Your task to perform on an android device: Go to battery settings Image 0: 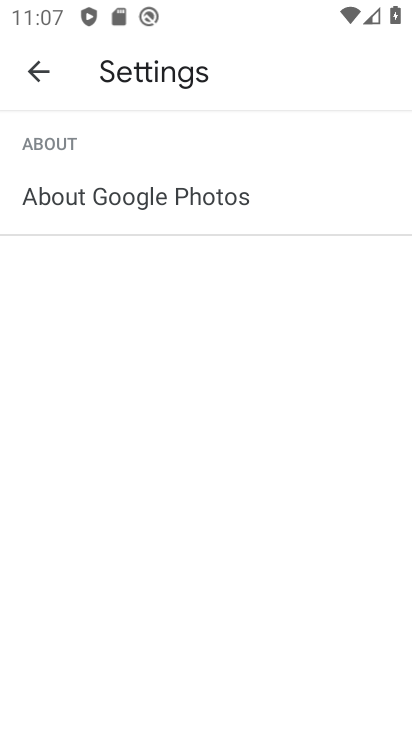
Step 0: task complete